Your task to perform on an android device: manage bookmarks in the chrome app Image 0: 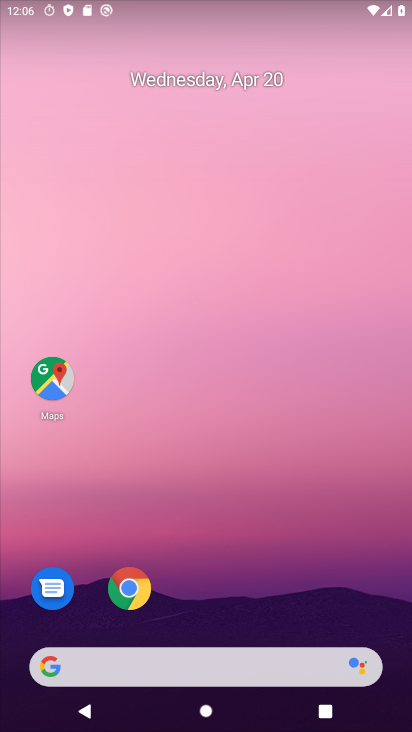
Step 0: drag from (216, 636) to (204, 112)
Your task to perform on an android device: manage bookmarks in the chrome app Image 1: 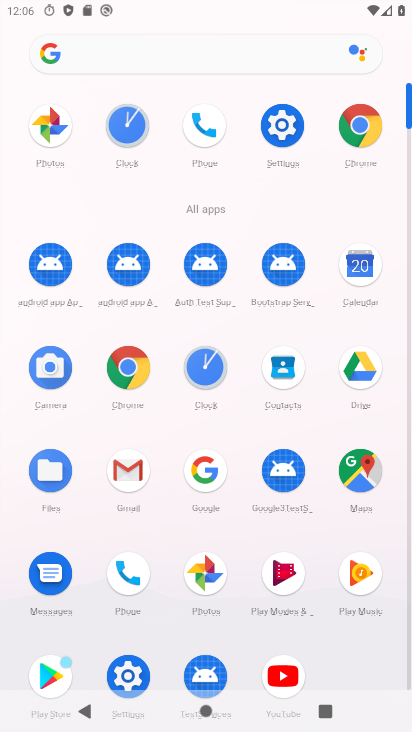
Step 1: click (138, 378)
Your task to perform on an android device: manage bookmarks in the chrome app Image 2: 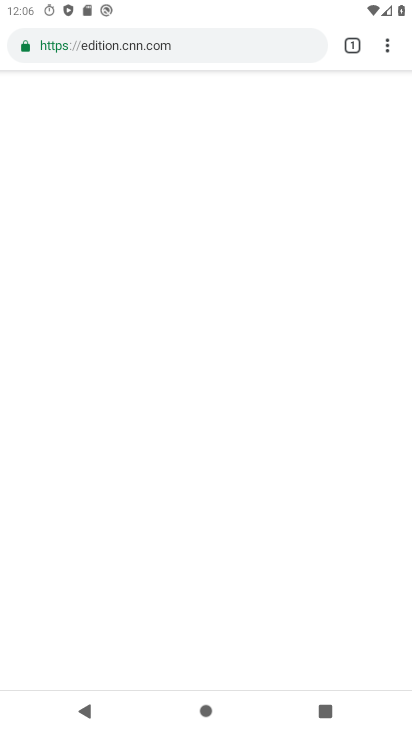
Step 2: click (384, 56)
Your task to perform on an android device: manage bookmarks in the chrome app Image 3: 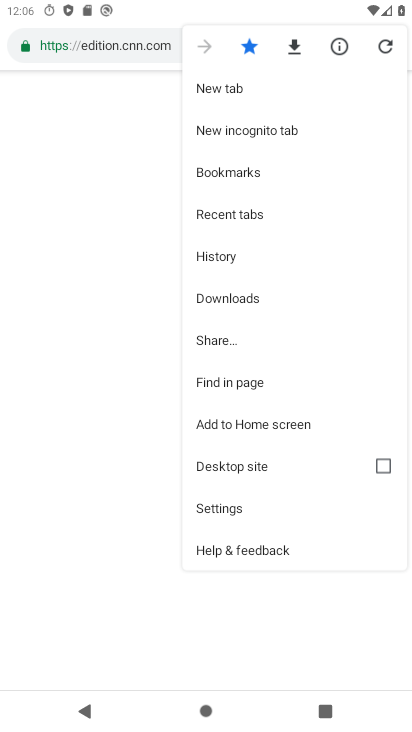
Step 3: click (237, 171)
Your task to perform on an android device: manage bookmarks in the chrome app Image 4: 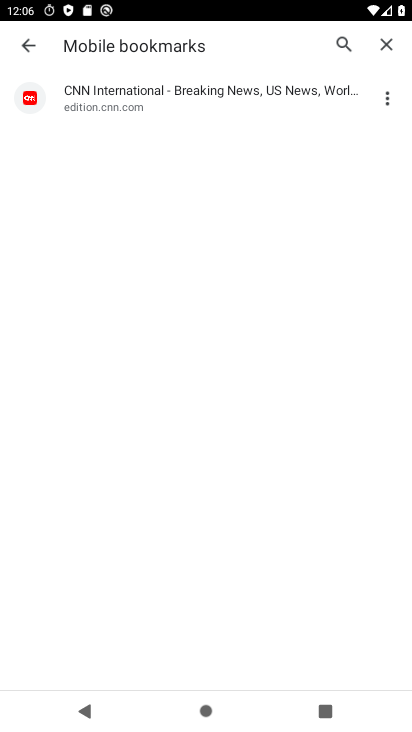
Step 4: click (383, 103)
Your task to perform on an android device: manage bookmarks in the chrome app Image 5: 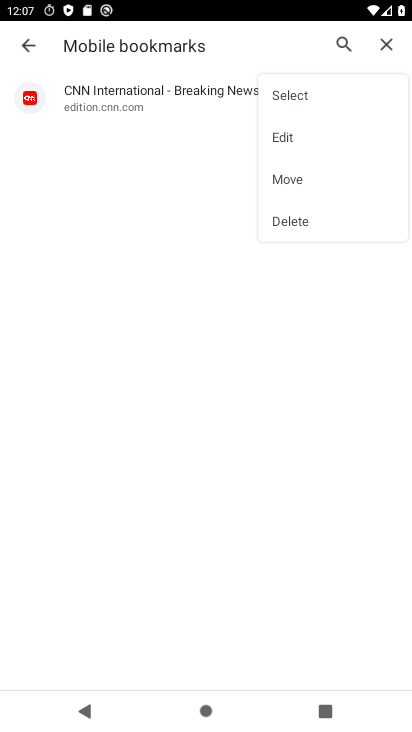
Step 5: click (301, 116)
Your task to perform on an android device: manage bookmarks in the chrome app Image 6: 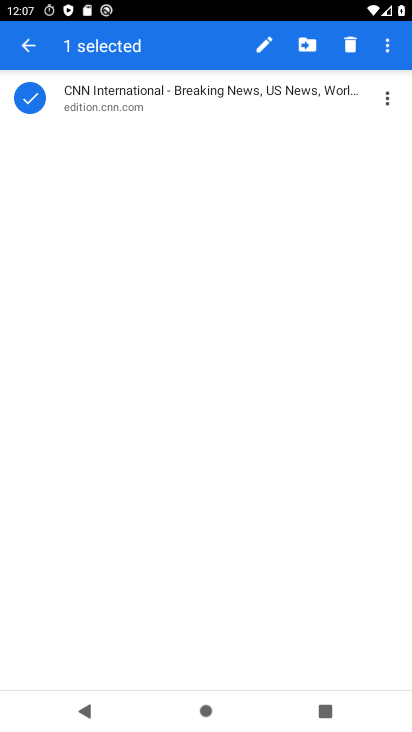
Step 6: click (387, 54)
Your task to perform on an android device: manage bookmarks in the chrome app Image 7: 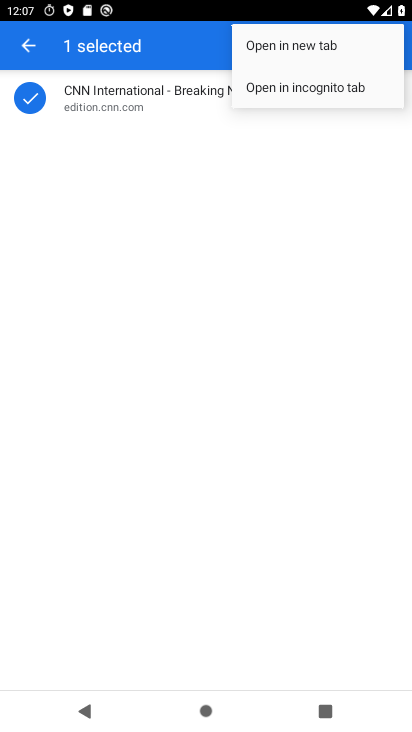
Step 7: click (303, 186)
Your task to perform on an android device: manage bookmarks in the chrome app Image 8: 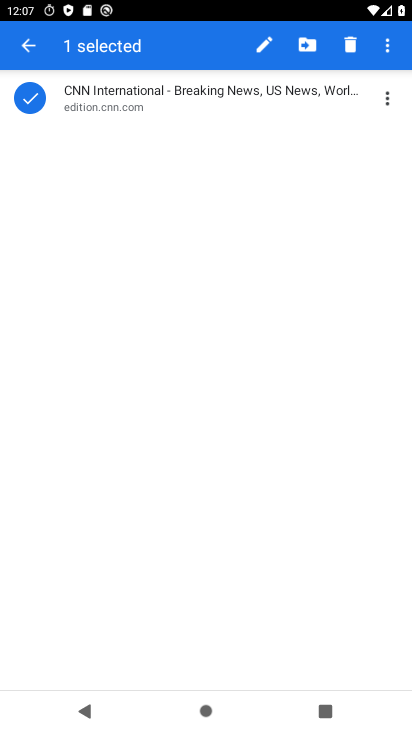
Step 8: click (380, 96)
Your task to perform on an android device: manage bookmarks in the chrome app Image 9: 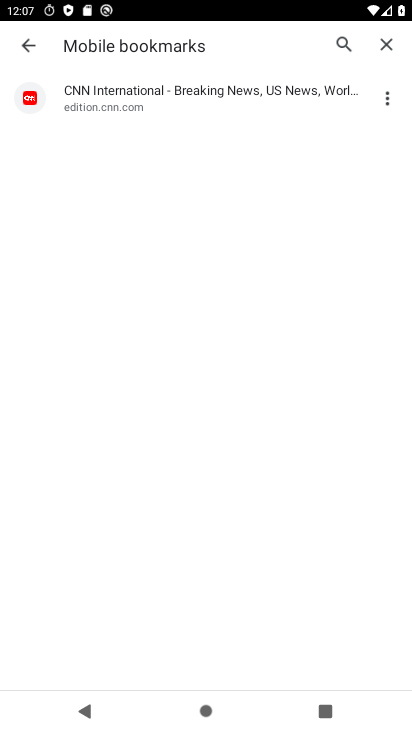
Step 9: click (380, 96)
Your task to perform on an android device: manage bookmarks in the chrome app Image 10: 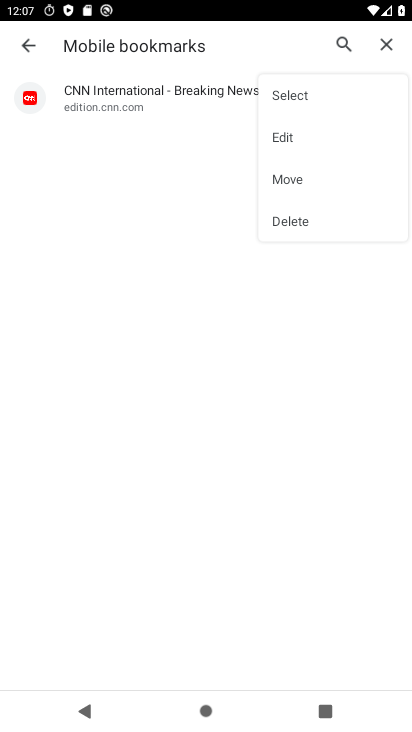
Step 10: click (315, 129)
Your task to perform on an android device: manage bookmarks in the chrome app Image 11: 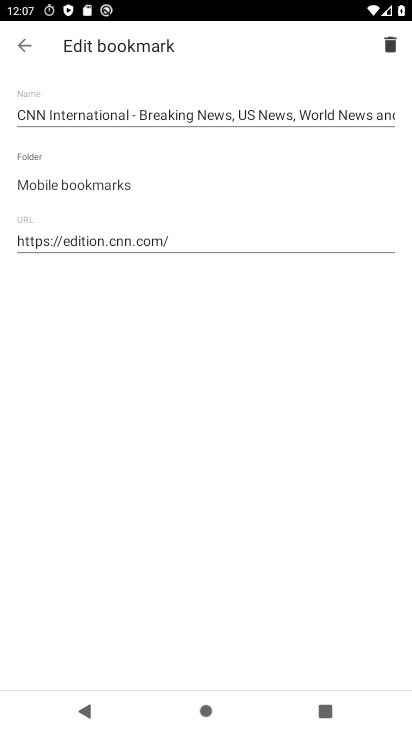
Step 11: task complete